Your task to perform on an android device: toggle airplane mode Image 0: 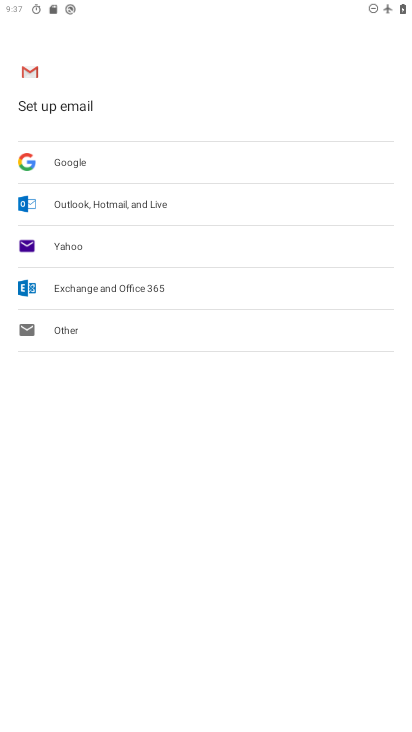
Step 0: press home button
Your task to perform on an android device: toggle airplane mode Image 1: 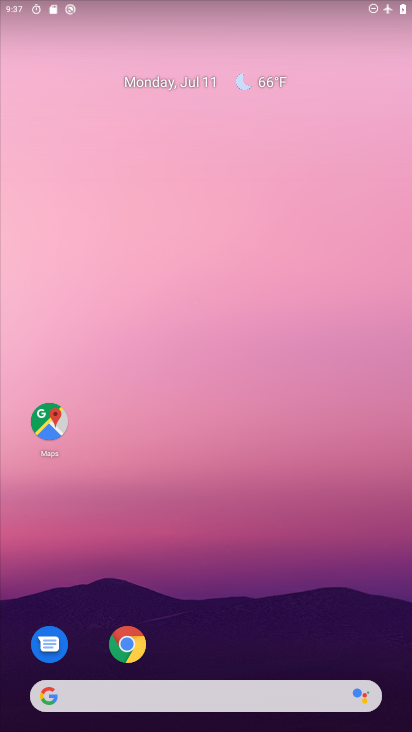
Step 1: drag from (312, 608) to (243, 172)
Your task to perform on an android device: toggle airplane mode Image 2: 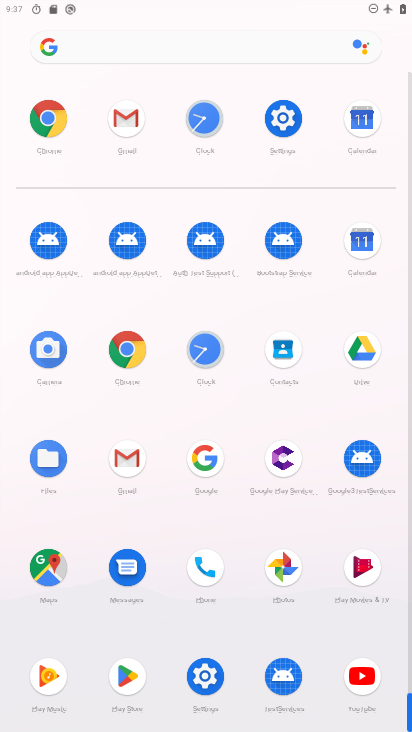
Step 2: click (283, 114)
Your task to perform on an android device: toggle airplane mode Image 3: 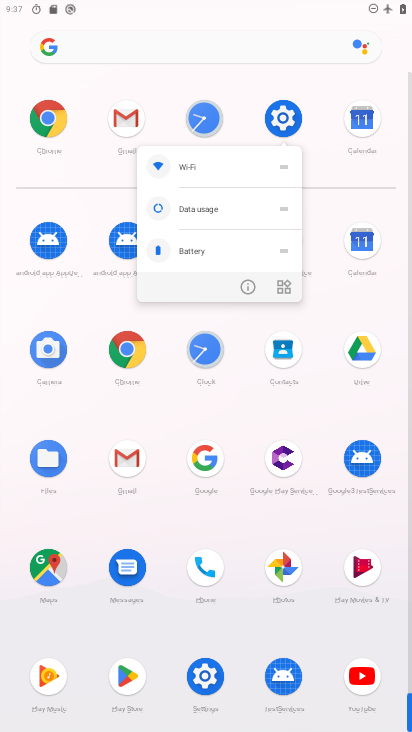
Step 3: click (279, 115)
Your task to perform on an android device: toggle airplane mode Image 4: 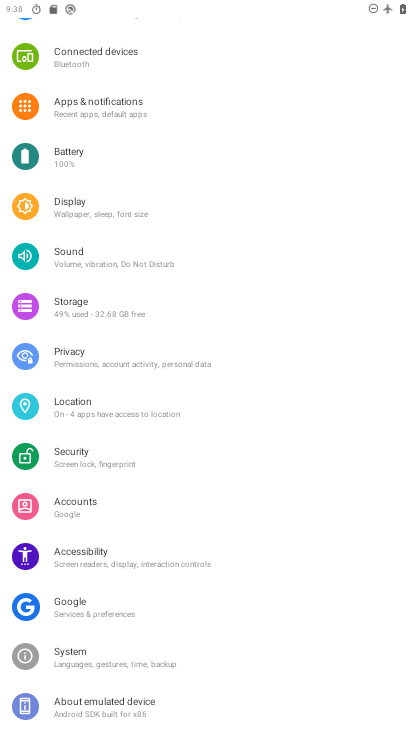
Step 4: drag from (116, 76) to (120, 506)
Your task to perform on an android device: toggle airplane mode Image 5: 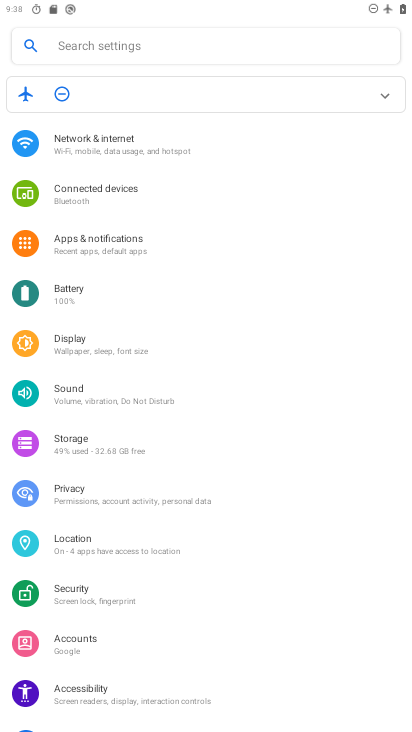
Step 5: click (99, 148)
Your task to perform on an android device: toggle airplane mode Image 6: 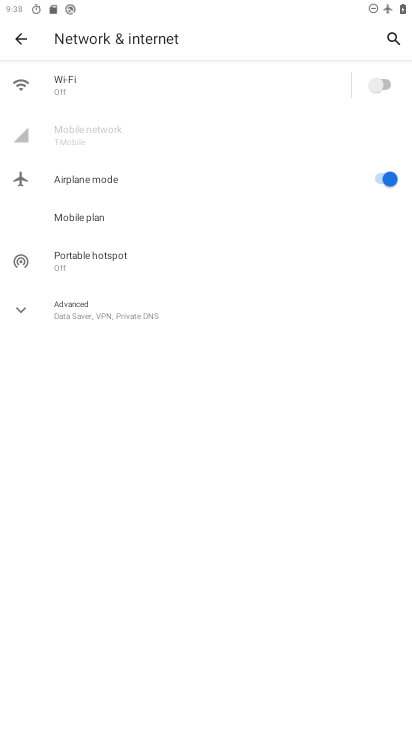
Step 6: click (387, 182)
Your task to perform on an android device: toggle airplane mode Image 7: 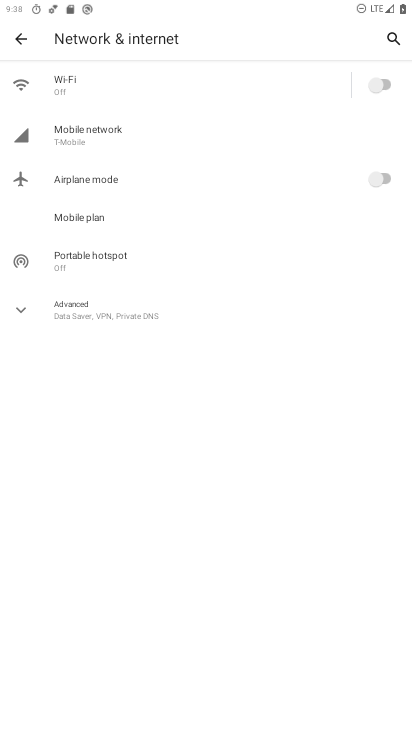
Step 7: task complete